Your task to perform on an android device: toggle wifi Image 0: 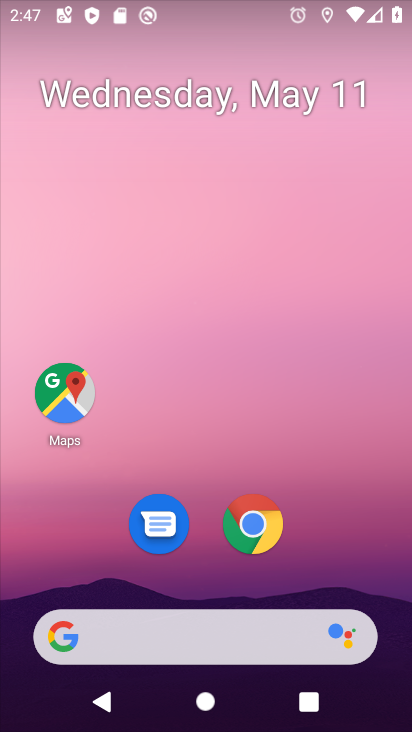
Step 0: drag from (347, 536) to (263, 0)
Your task to perform on an android device: toggle wifi Image 1: 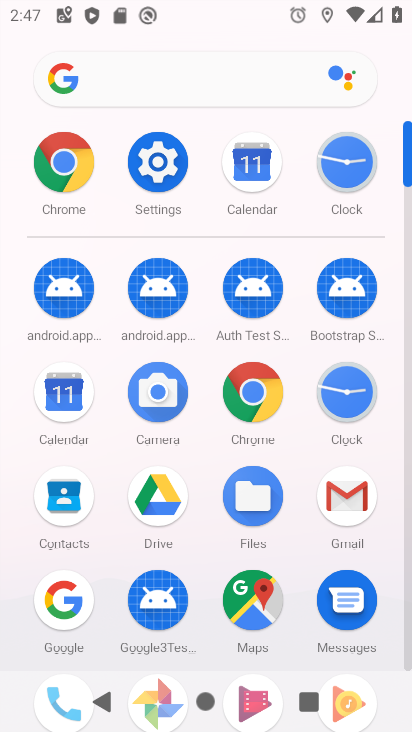
Step 1: click (159, 163)
Your task to perform on an android device: toggle wifi Image 2: 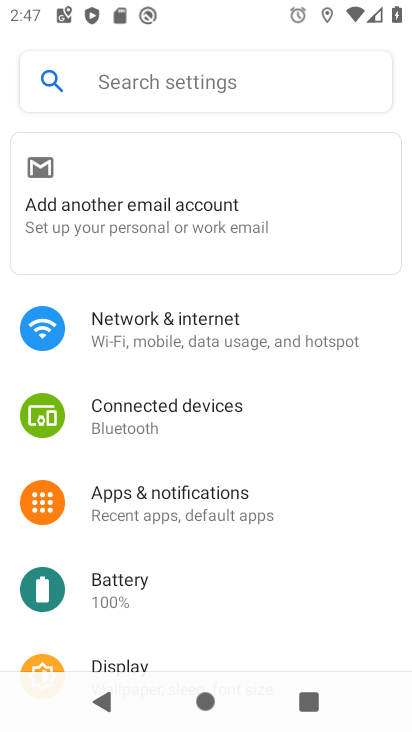
Step 2: click (204, 340)
Your task to perform on an android device: toggle wifi Image 3: 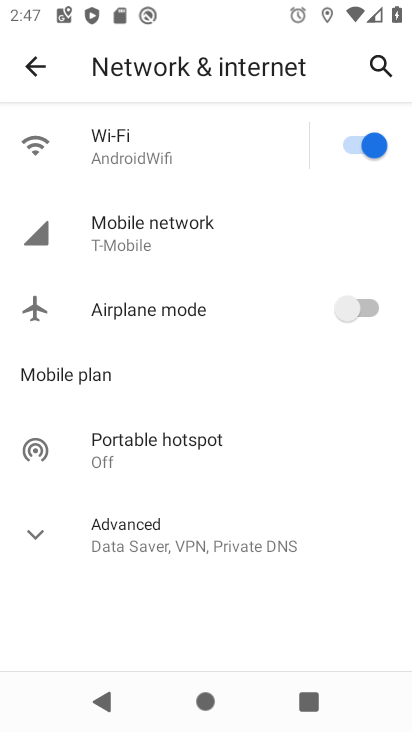
Step 3: click (346, 141)
Your task to perform on an android device: toggle wifi Image 4: 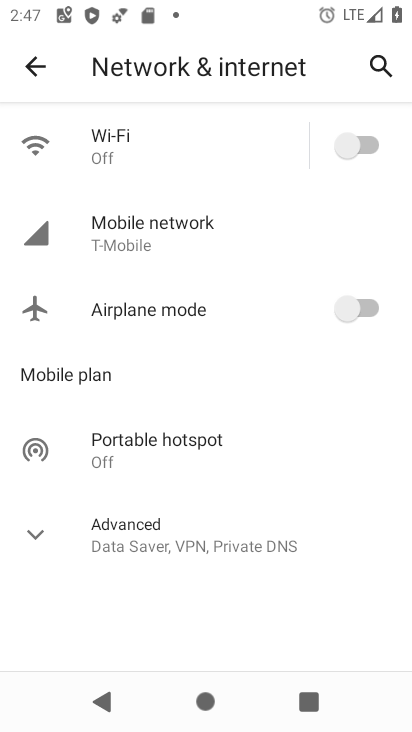
Step 4: task complete